Your task to perform on an android device: Show me popular videos on Youtube Image 0: 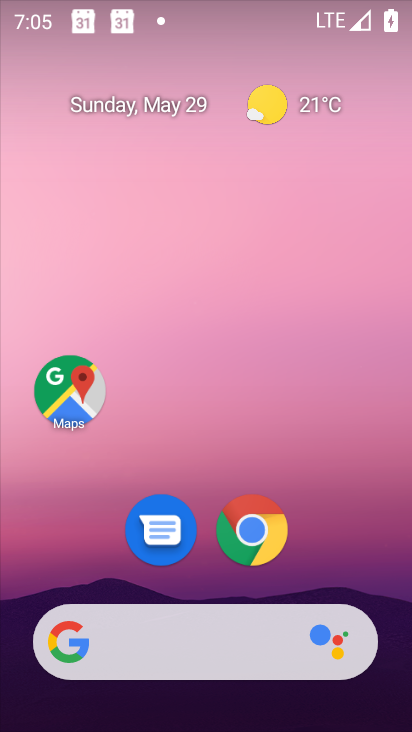
Step 0: press home button
Your task to perform on an android device: Show me popular videos on Youtube Image 1: 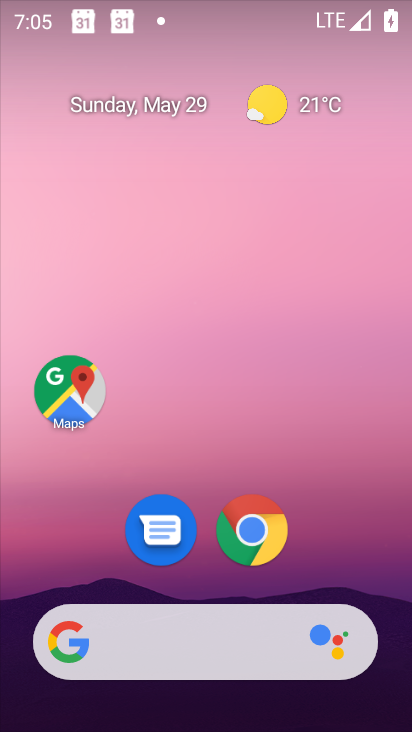
Step 1: drag from (280, 658) to (243, 121)
Your task to perform on an android device: Show me popular videos on Youtube Image 2: 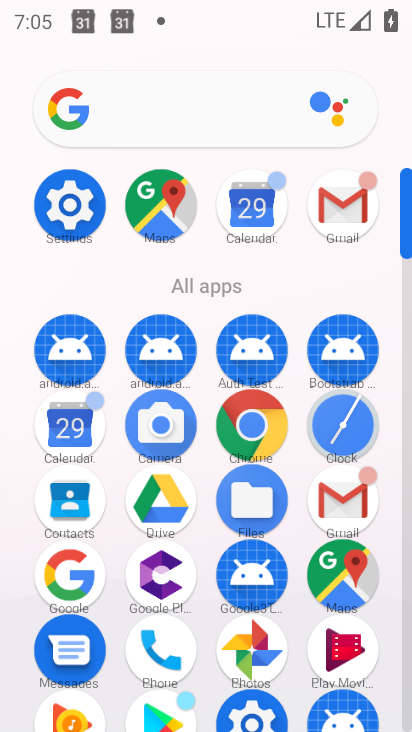
Step 2: drag from (113, 606) to (127, 270)
Your task to perform on an android device: Show me popular videos on Youtube Image 3: 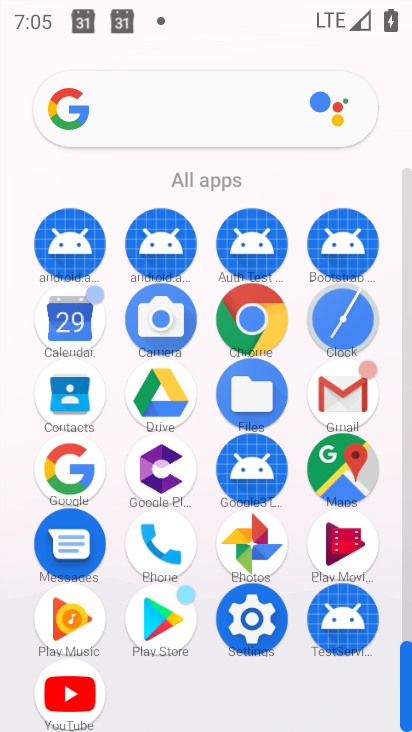
Step 3: click (83, 695)
Your task to perform on an android device: Show me popular videos on Youtube Image 4: 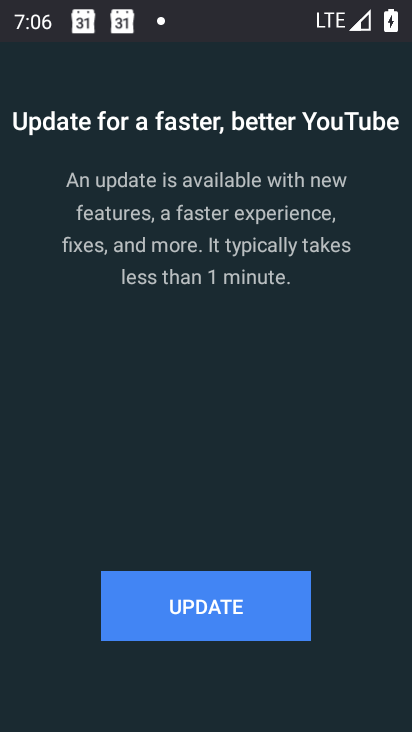
Step 4: click (227, 596)
Your task to perform on an android device: Show me popular videos on Youtube Image 5: 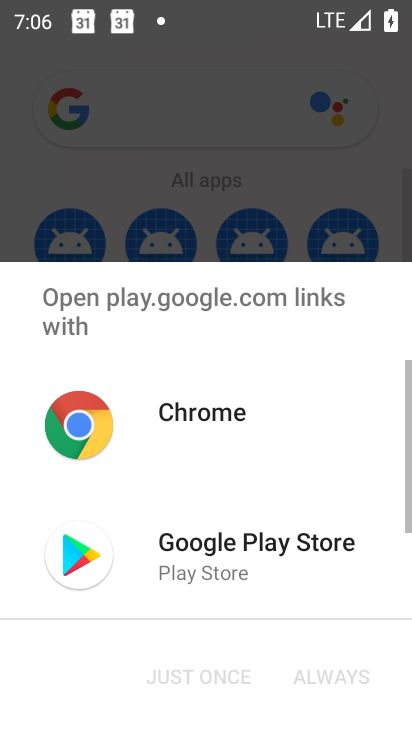
Step 5: click (228, 573)
Your task to perform on an android device: Show me popular videos on Youtube Image 6: 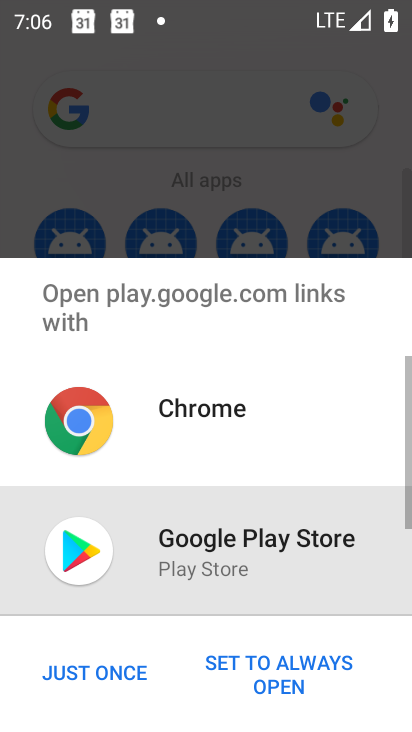
Step 6: click (129, 668)
Your task to perform on an android device: Show me popular videos on Youtube Image 7: 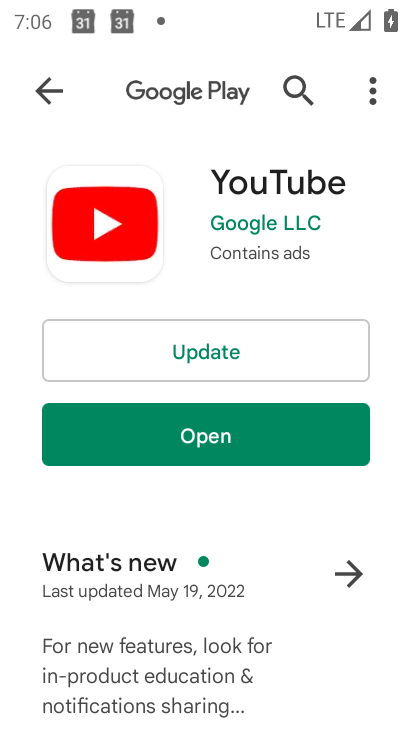
Step 7: drag from (285, 91) to (283, 426)
Your task to perform on an android device: Show me popular videos on Youtube Image 8: 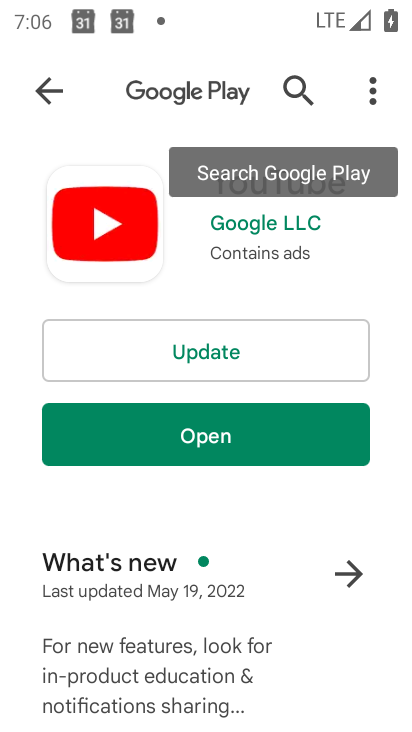
Step 8: click (221, 355)
Your task to perform on an android device: Show me popular videos on Youtube Image 9: 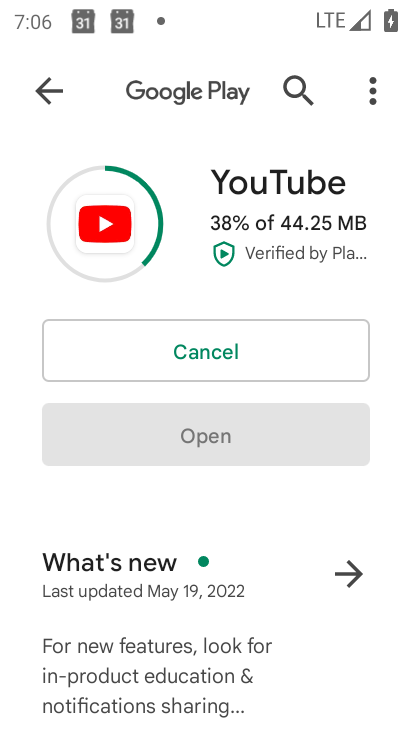
Step 9: press home button
Your task to perform on an android device: Show me popular videos on Youtube Image 10: 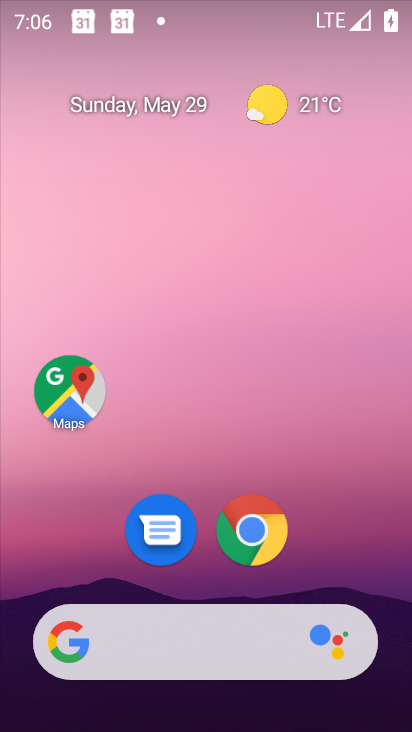
Step 10: drag from (215, 677) to (238, 181)
Your task to perform on an android device: Show me popular videos on Youtube Image 11: 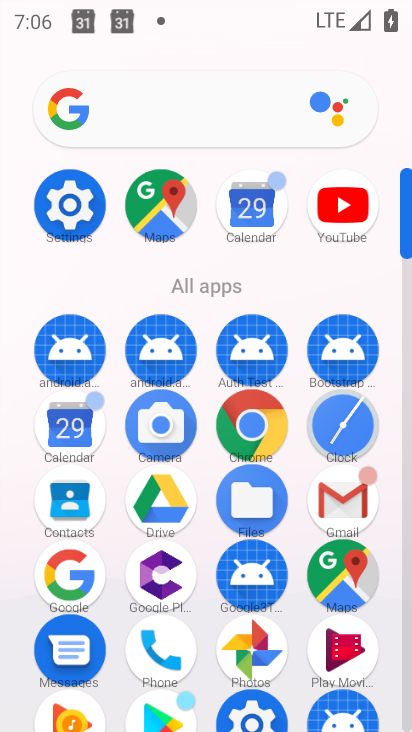
Step 11: drag from (193, 616) to (164, 327)
Your task to perform on an android device: Show me popular videos on Youtube Image 12: 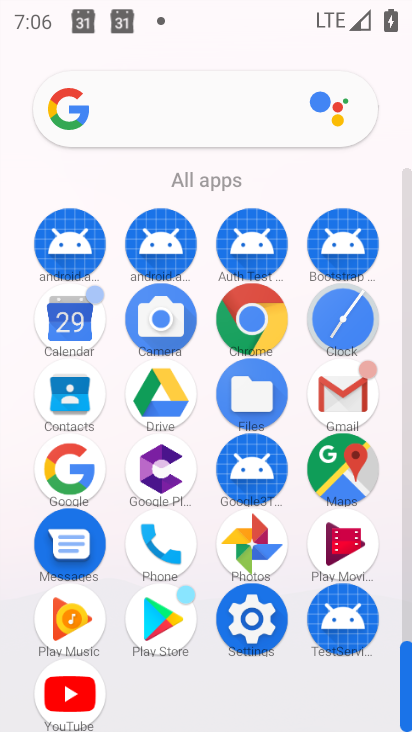
Step 12: click (84, 683)
Your task to perform on an android device: Show me popular videos on Youtube Image 13: 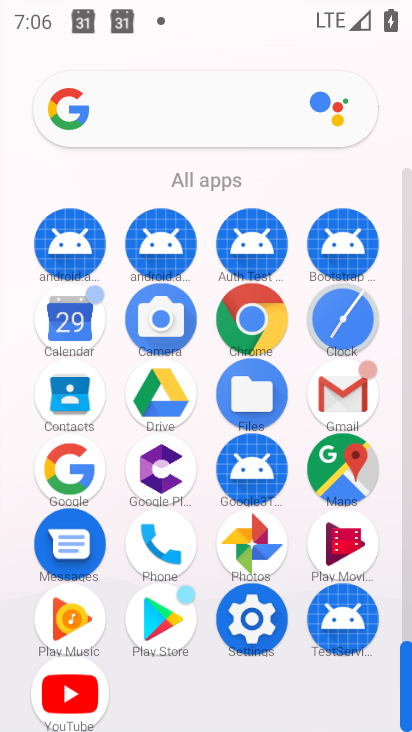
Step 13: click (78, 682)
Your task to perform on an android device: Show me popular videos on Youtube Image 14: 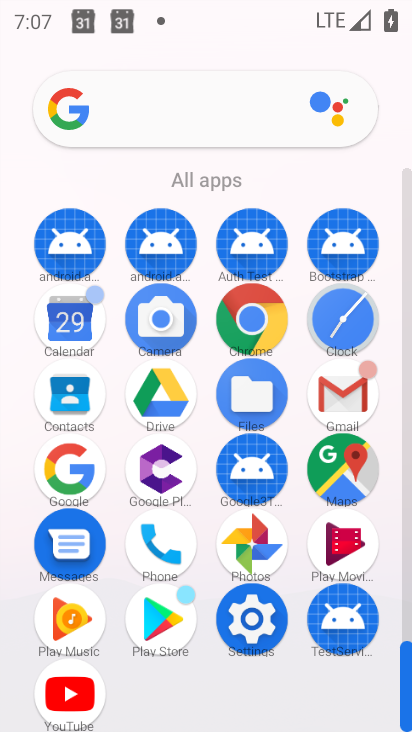
Step 14: click (60, 689)
Your task to perform on an android device: Show me popular videos on Youtube Image 15: 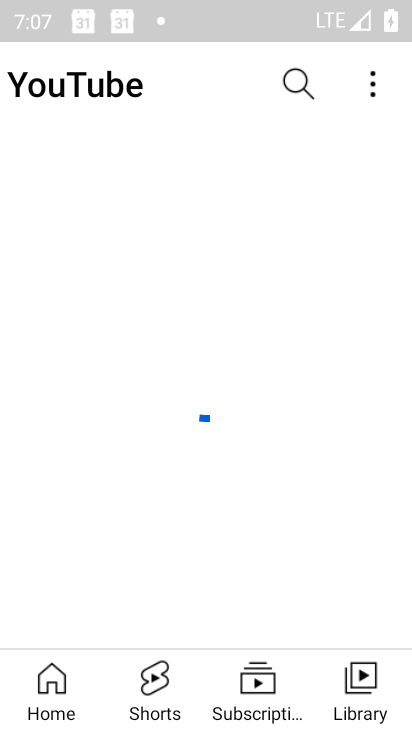
Step 15: click (310, 79)
Your task to perform on an android device: Show me popular videos on Youtube Image 16: 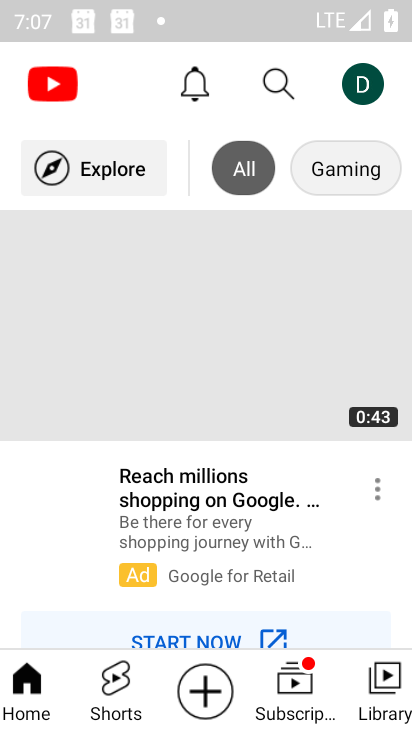
Step 16: click (270, 66)
Your task to perform on an android device: Show me popular videos on Youtube Image 17: 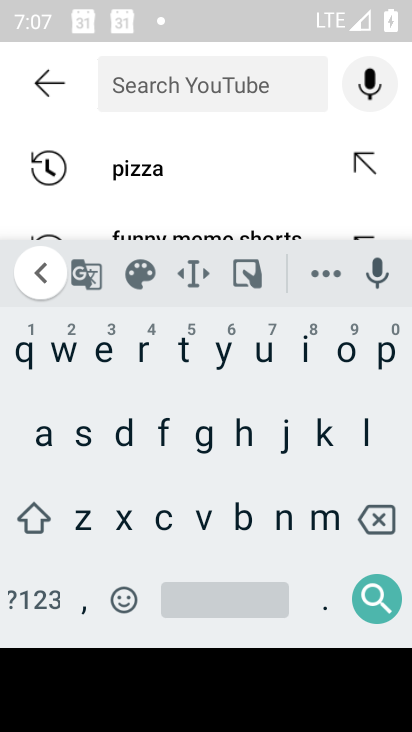
Step 17: click (381, 361)
Your task to perform on an android device: Show me popular videos on Youtube Image 18: 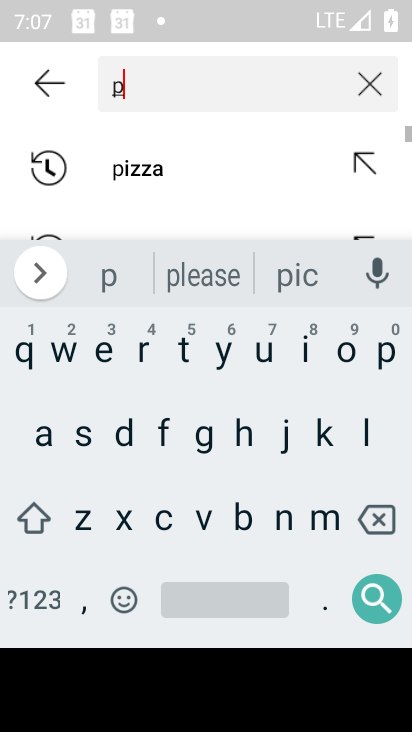
Step 18: click (342, 352)
Your task to perform on an android device: Show me popular videos on Youtube Image 19: 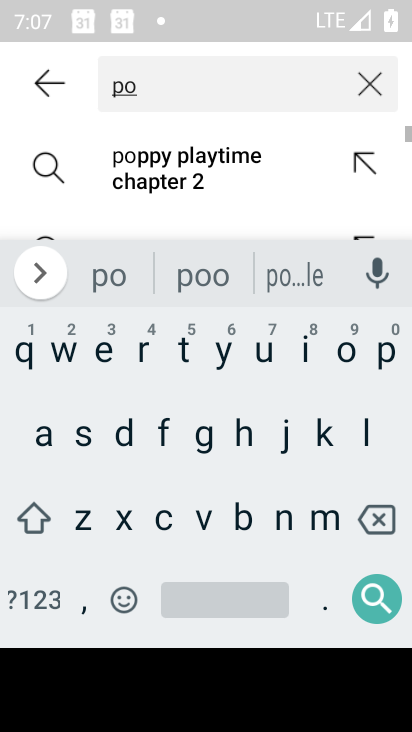
Step 19: click (383, 355)
Your task to perform on an android device: Show me popular videos on Youtube Image 20: 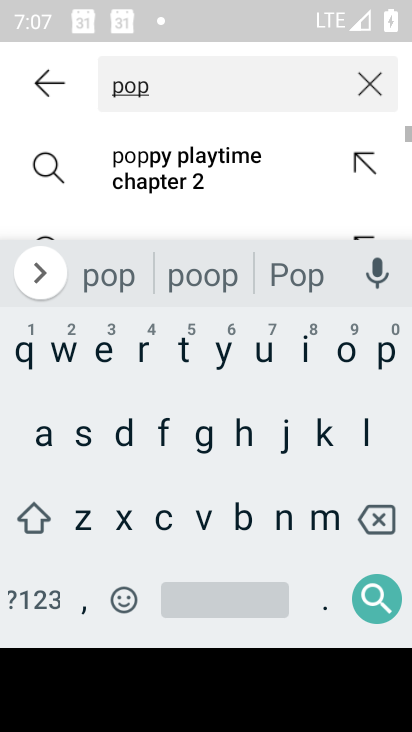
Step 20: click (264, 357)
Your task to perform on an android device: Show me popular videos on Youtube Image 21: 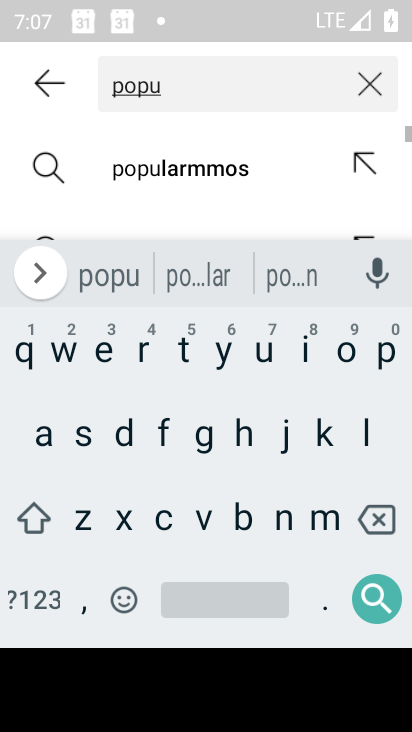
Step 21: click (207, 274)
Your task to perform on an android device: Show me popular videos on Youtube Image 22: 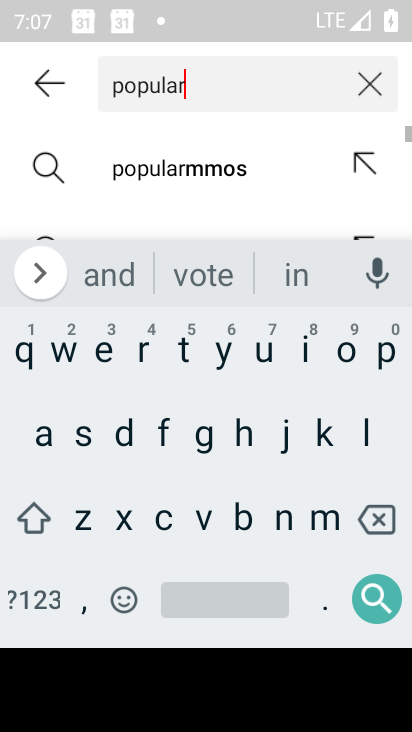
Step 22: click (202, 515)
Your task to perform on an android device: Show me popular videos on Youtube Image 23: 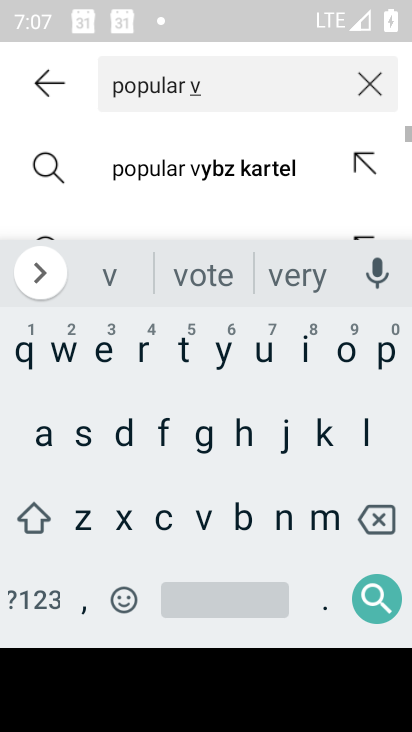
Step 23: click (299, 346)
Your task to perform on an android device: Show me popular videos on Youtube Image 24: 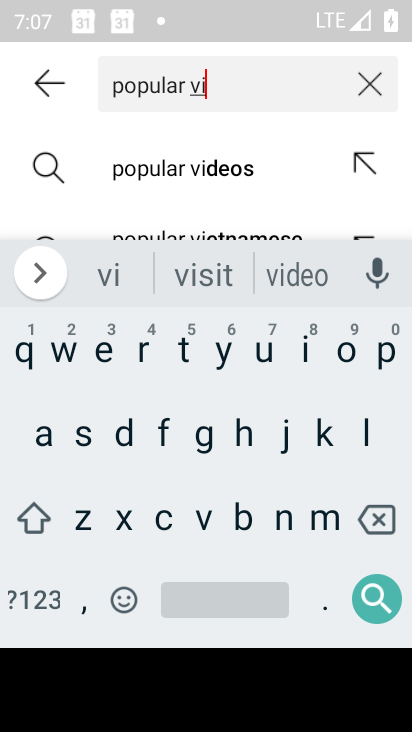
Step 24: click (207, 179)
Your task to perform on an android device: Show me popular videos on Youtube Image 25: 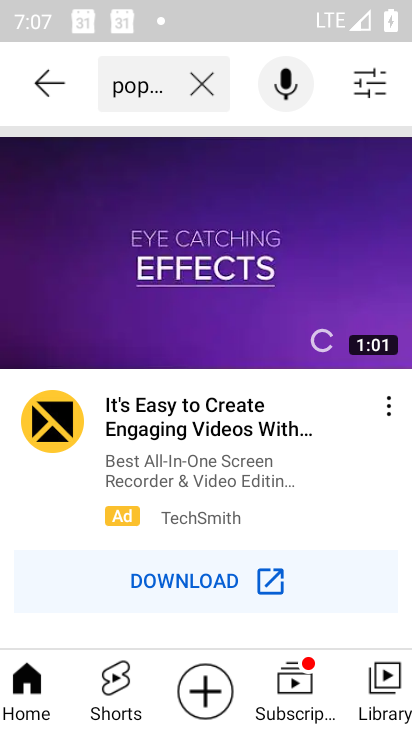
Step 25: task complete